Your task to perform on an android device: open chrome privacy settings Image 0: 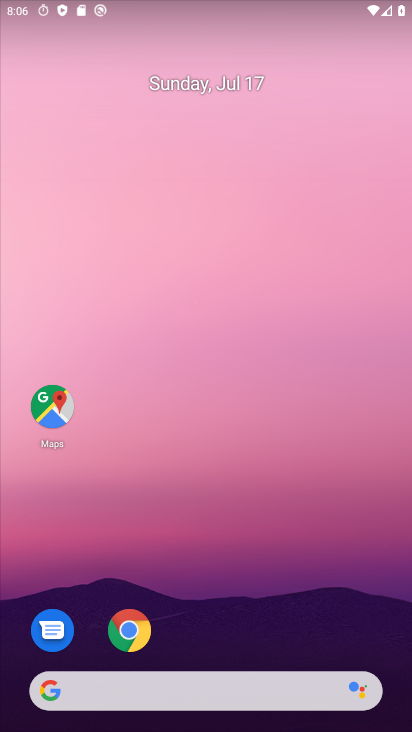
Step 0: click (125, 638)
Your task to perform on an android device: open chrome privacy settings Image 1: 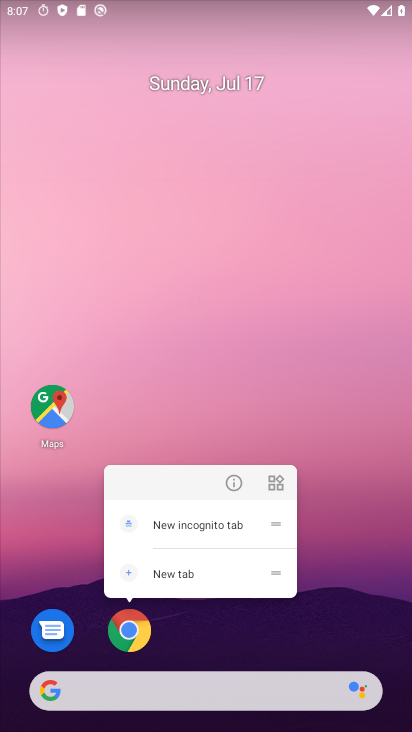
Step 1: click (130, 633)
Your task to perform on an android device: open chrome privacy settings Image 2: 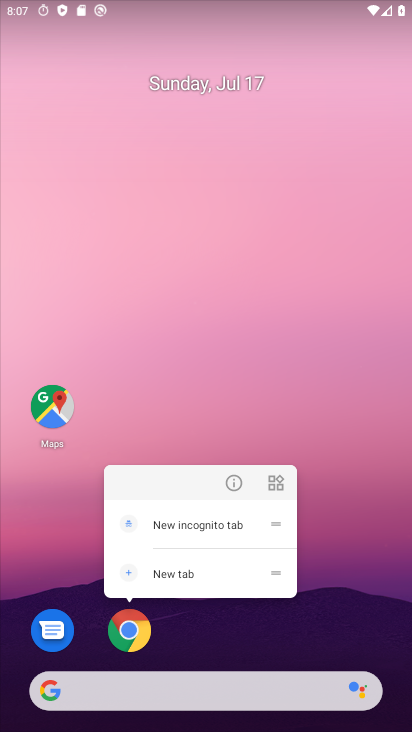
Step 2: click (134, 618)
Your task to perform on an android device: open chrome privacy settings Image 3: 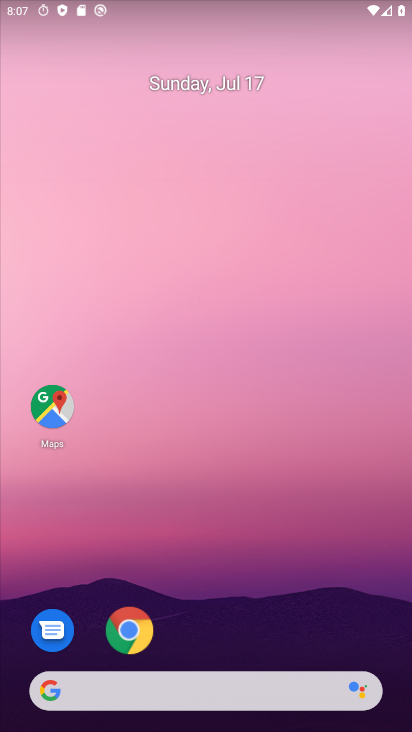
Step 3: click (134, 618)
Your task to perform on an android device: open chrome privacy settings Image 4: 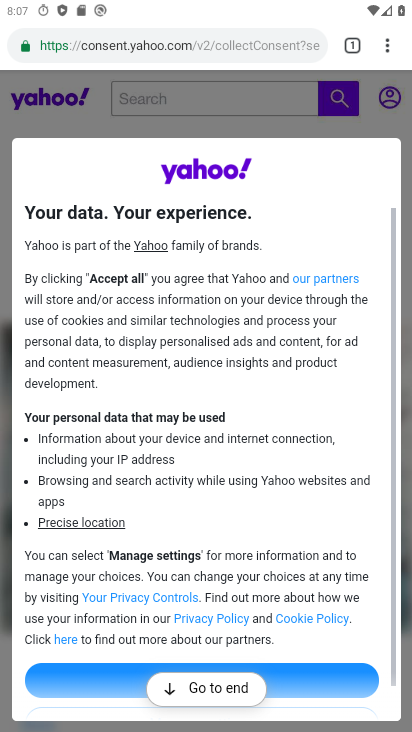
Step 4: click (392, 46)
Your task to perform on an android device: open chrome privacy settings Image 5: 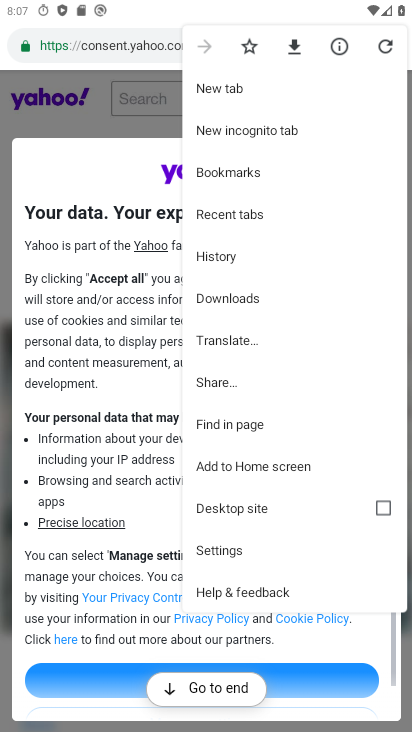
Step 5: click (210, 547)
Your task to perform on an android device: open chrome privacy settings Image 6: 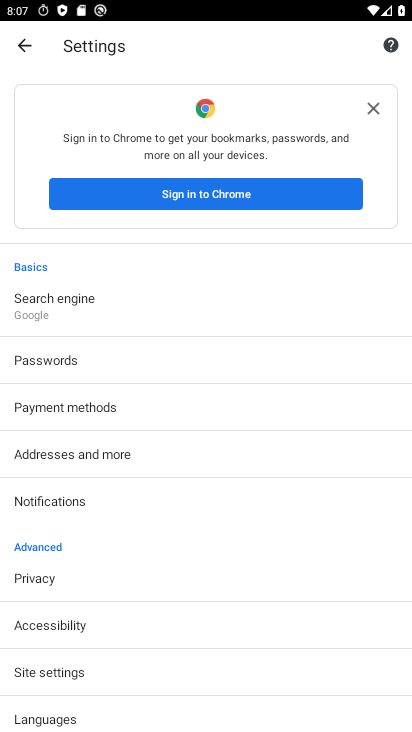
Step 6: click (38, 574)
Your task to perform on an android device: open chrome privacy settings Image 7: 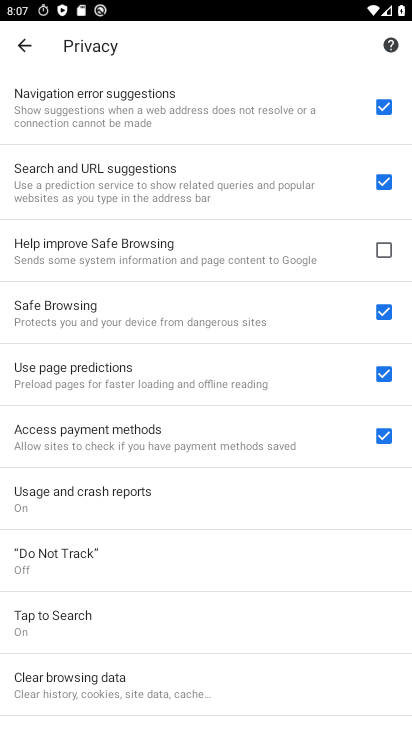
Step 7: task complete